Your task to perform on an android device: turn on bluetooth scan Image 0: 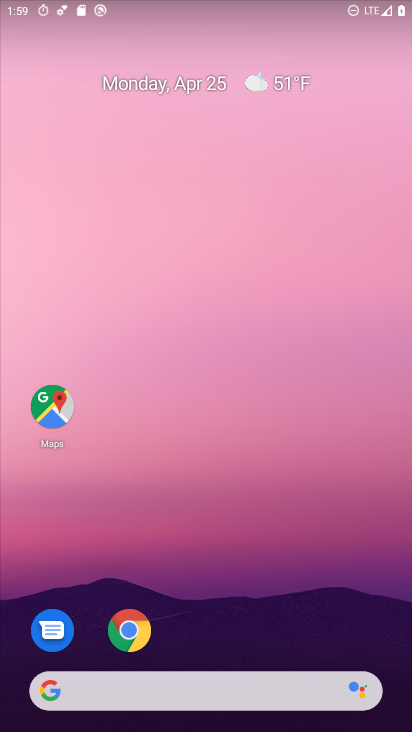
Step 0: drag from (227, 610) to (376, 80)
Your task to perform on an android device: turn on bluetooth scan Image 1: 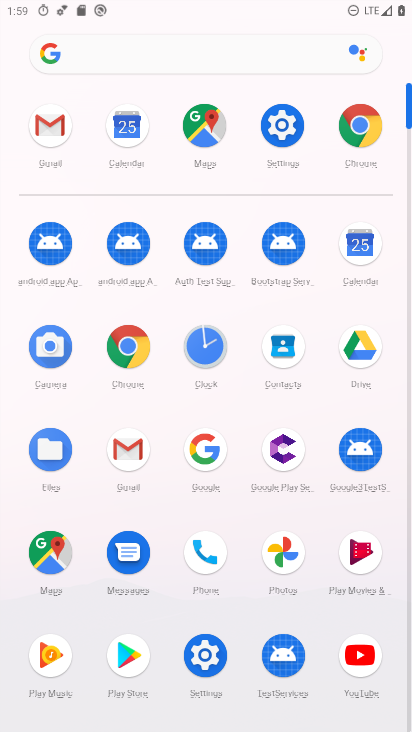
Step 1: click (279, 141)
Your task to perform on an android device: turn on bluetooth scan Image 2: 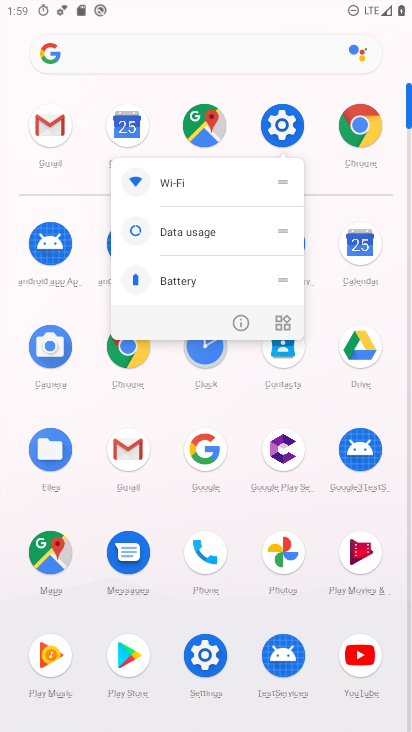
Step 2: click (237, 321)
Your task to perform on an android device: turn on bluetooth scan Image 3: 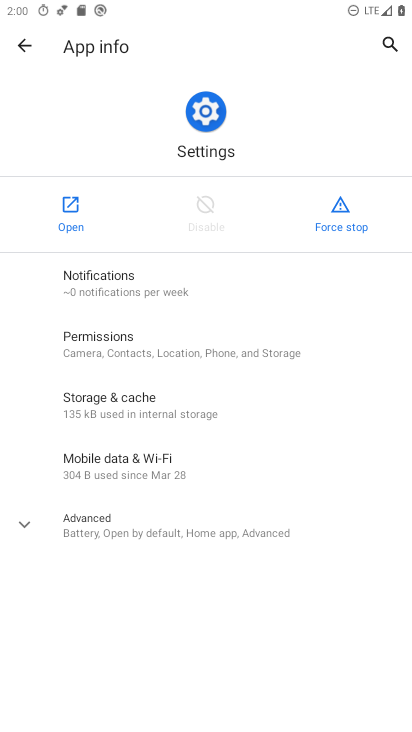
Step 3: click (72, 224)
Your task to perform on an android device: turn on bluetooth scan Image 4: 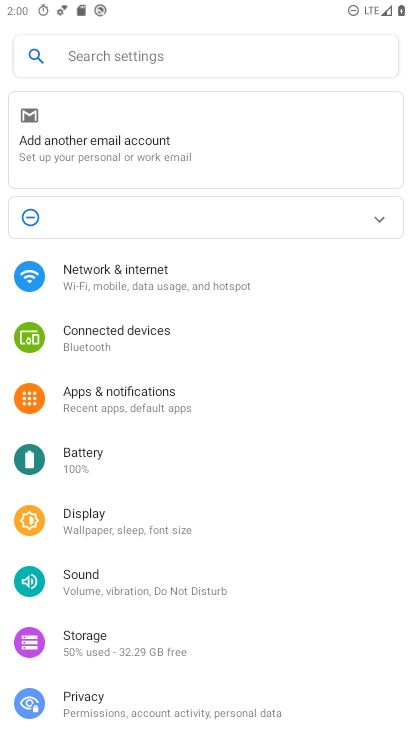
Step 4: click (110, 63)
Your task to perform on an android device: turn on bluetooth scan Image 5: 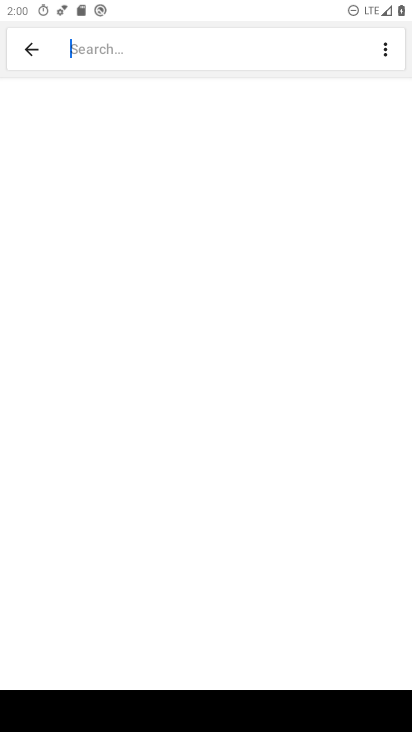
Step 5: type "bluetooth scan"
Your task to perform on an android device: turn on bluetooth scan Image 6: 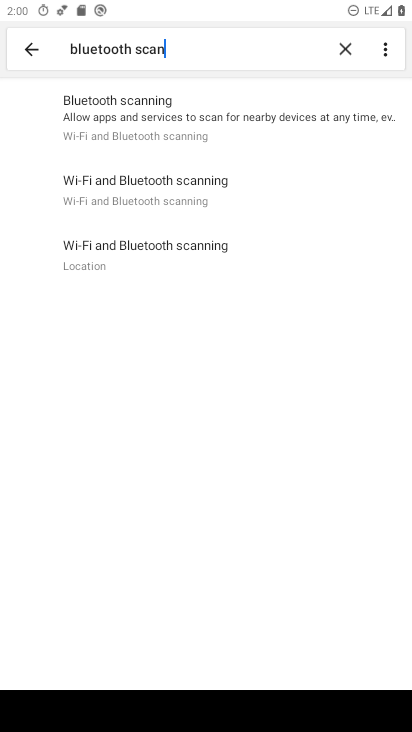
Step 6: click (150, 119)
Your task to perform on an android device: turn on bluetooth scan Image 7: 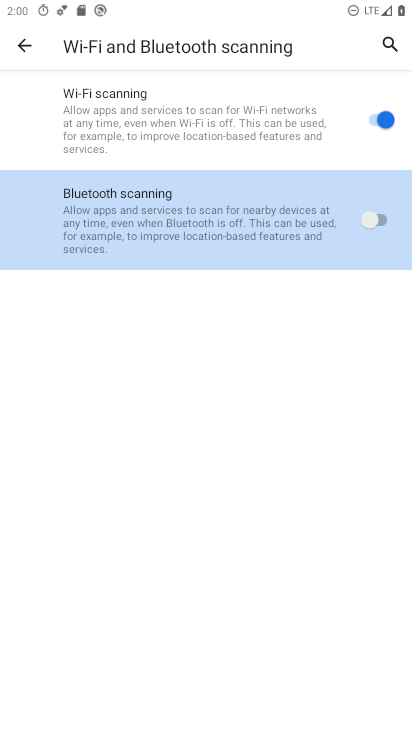
Step 7: click (277, 234)
Your task to perform on an android device: turn on bluetooth scan Image 8: 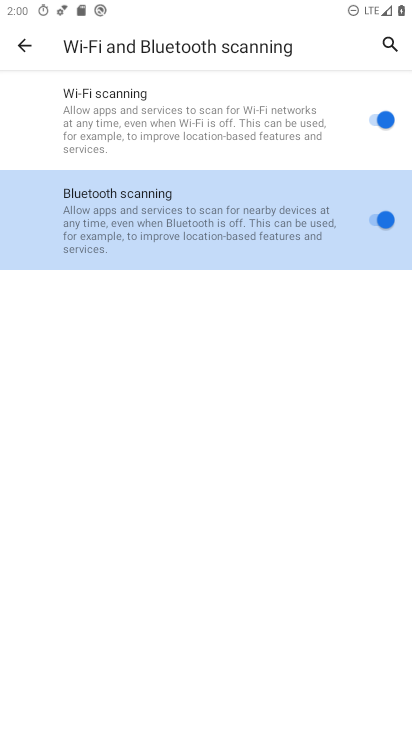
Step 8: task complete